Your task to perform on an android device: manage bookmarks in the chrome app Image 0: 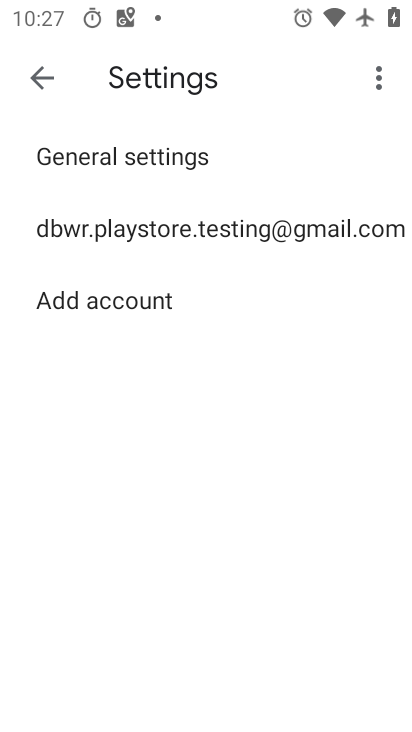
Step 0: press home button
Your task to perform on an android device: manage bookmarks in the chrome app Image 1: 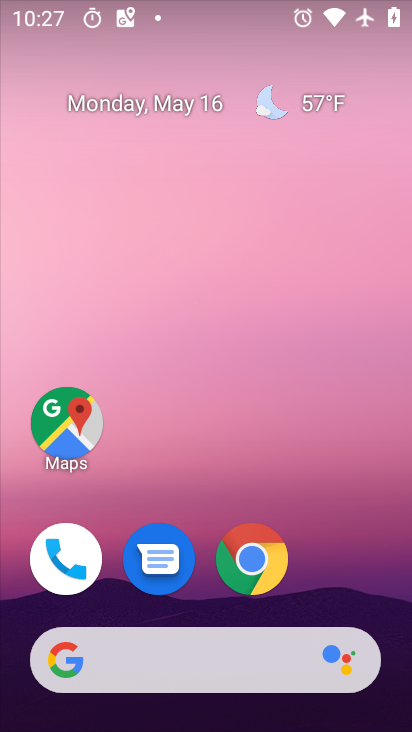
Step 1: click (255, 557)
Your task to perform on an android device: manage bookmarks in the chrome app Image 2: 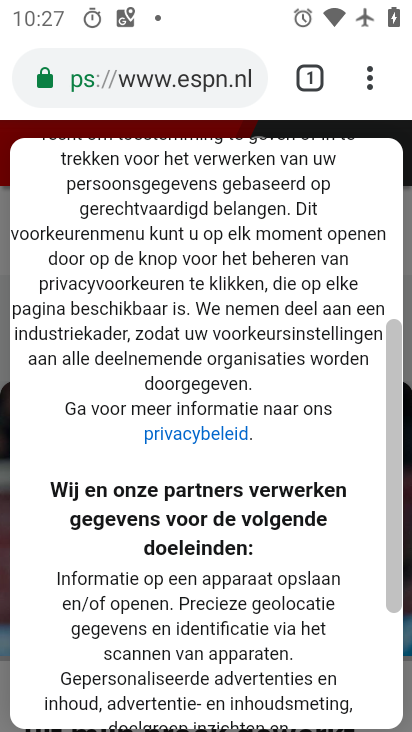
Step 2: drag from (372, 74) to (105, 285)
Your task to perform on an android device: manage bookmarks in the chrome app Image 3: 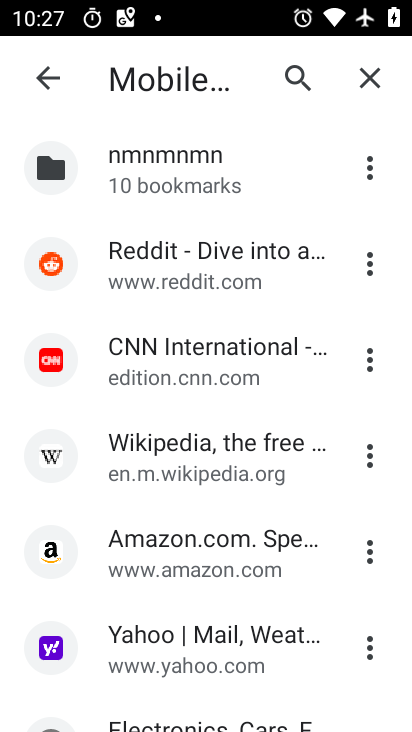
Step 3: click (371, 640)
Your task to perform on an android device: manage bookmarks in the chrome app Image 4: 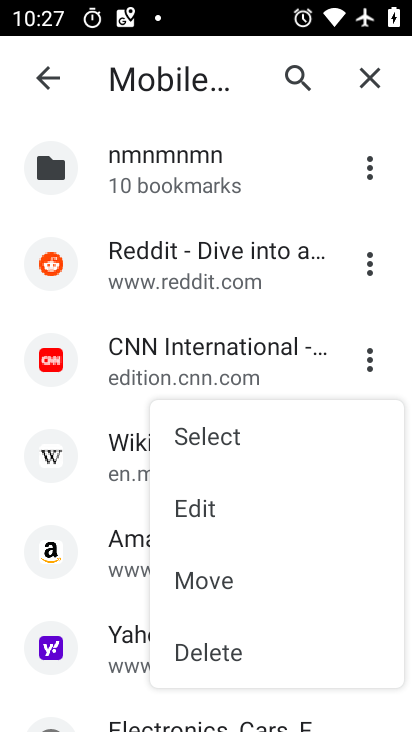
Step 4: click (211, 638)
Your task to perform on an android device: manage bookmarks in the chrome app Image 5: 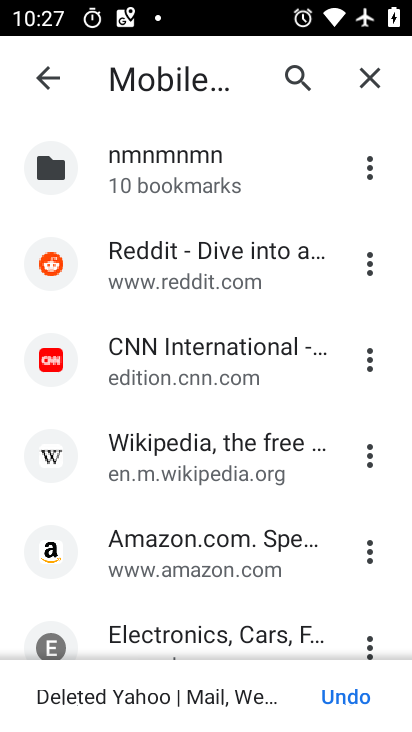
Step 5: task complete